Your task to perform on an android device: show emergency info Image 0: 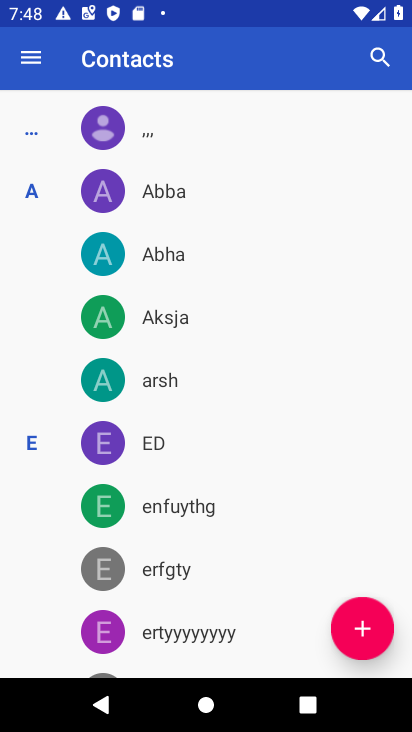
Step 0: press home button
Your task to perform on an android device: show emergency info Image 1: 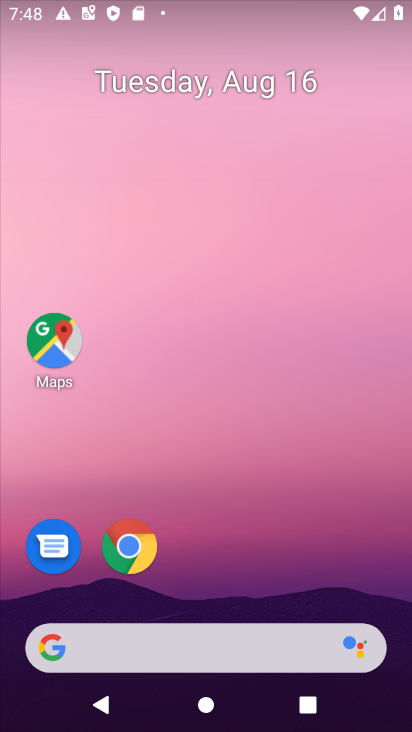
Step 1: drag from (274, 566) to (232, 2)
Your task to perform on an android device: show emergency info Image 2: 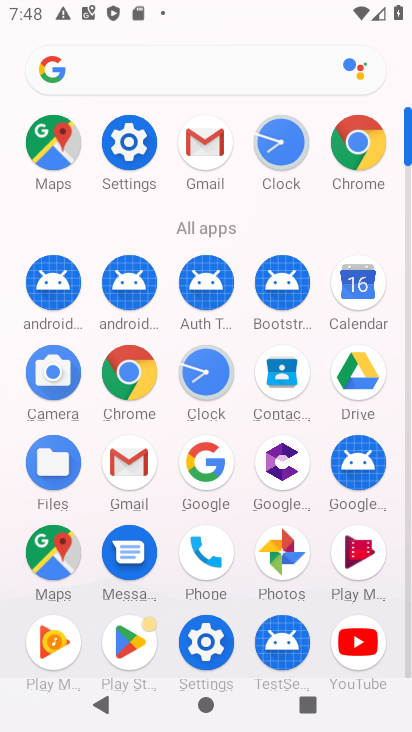
Step 2: click (130, 135)
Your task to perform on an android device: show emergency info Image 3: 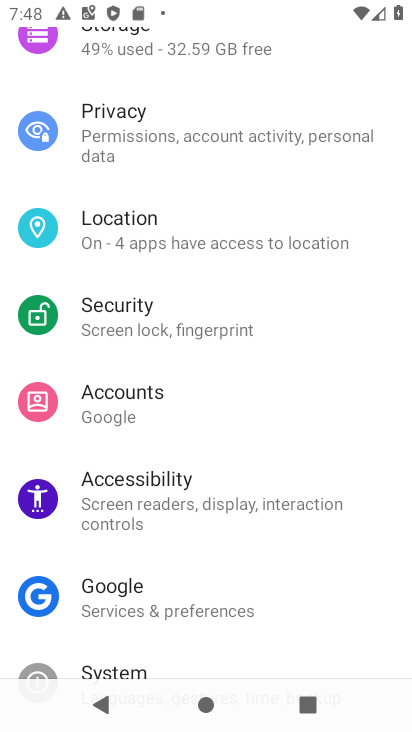
Step 3: drag from (242, 548) to (247, 260)
Your task to perform on an android device: show emergency info Image 4: 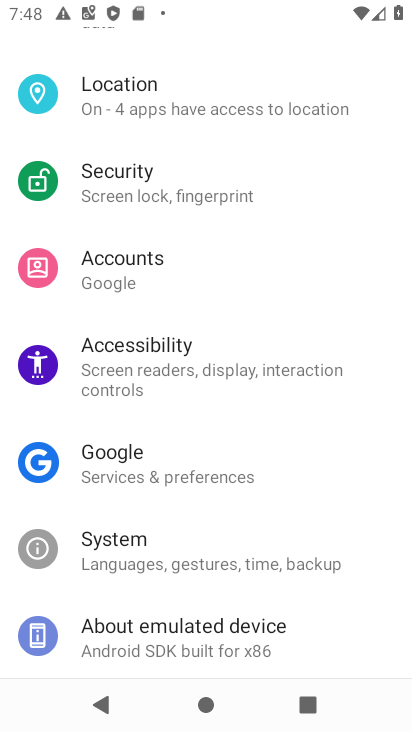
Step 4: click (211, 623)
Your task to perform on an android device: show emergency info Image 5: 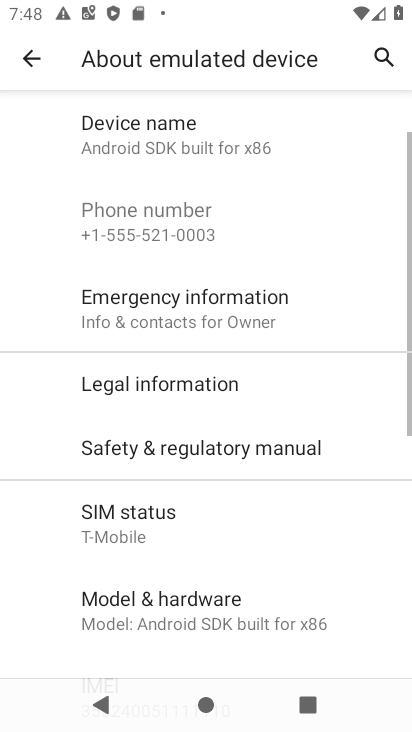
Step 5: click (207, 317)
Your task to perform on an android device: show emergency info Image 6: 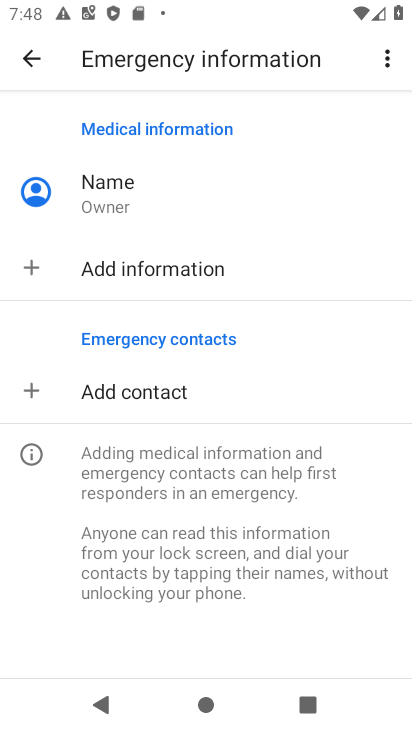
Step 6: task complete